Your task to perform on an android device: Go to location settings Image 0: 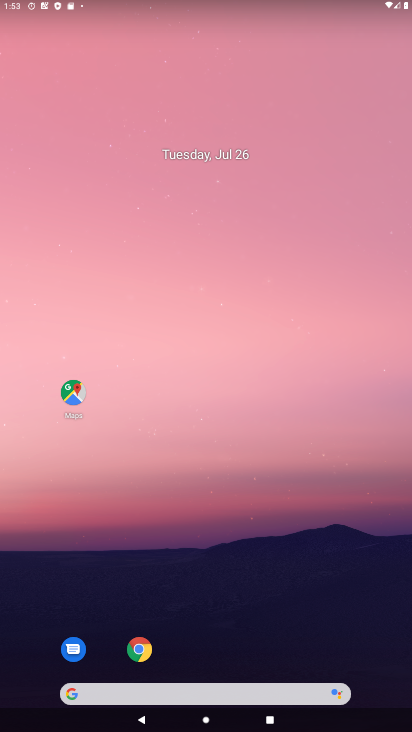
Step 0: drag from (377, 630) to (109, 78)
Your task to perform on an android device: Go to location settings Image 1: 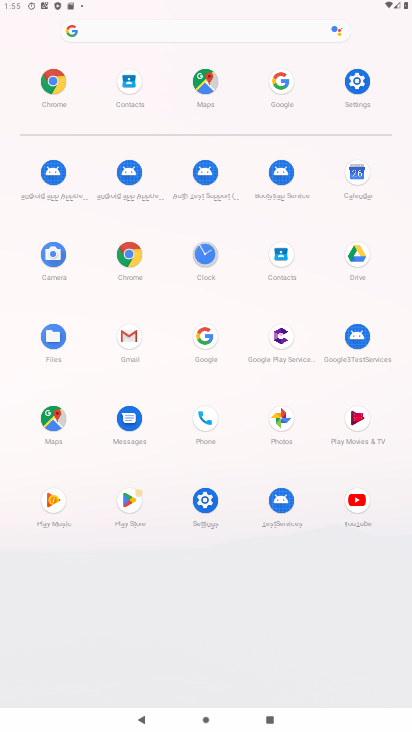
Step 1: click (197, 513)
Your task to perform on an android device: Go to location settings Image 2: 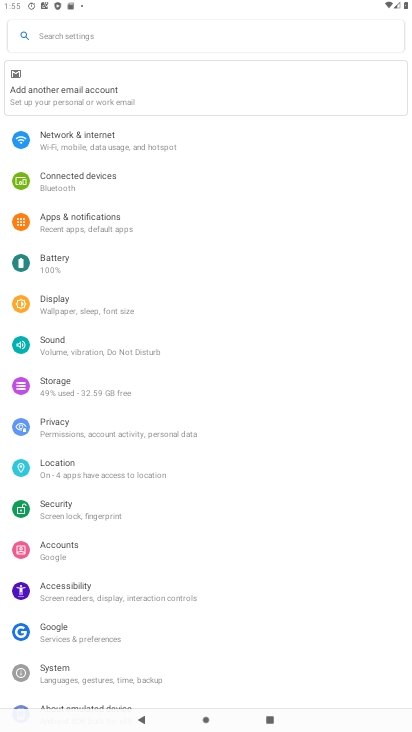
Step 2: click (53, 465)
Your task to perform on an android device: Go to location settings Image 3: 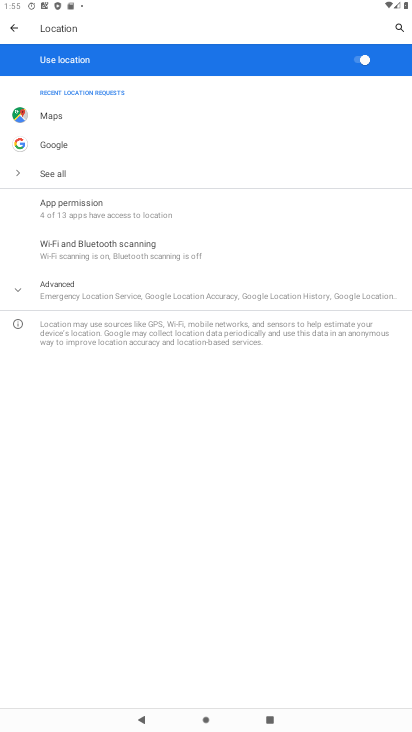
Step 3: task complete